Your task to perform on an android device: toggle show notifications on the lock screen Image 0: 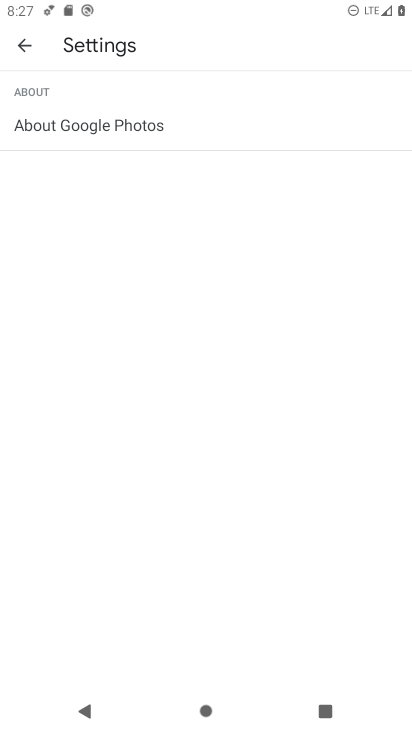
Step 0: drag from (207, 644) to (194, 204)
Your task to perform on an android device: toggle show notifications on the lock screen Image 1: 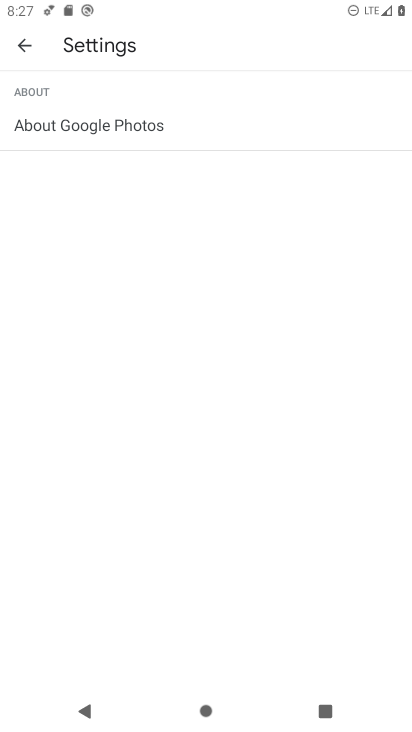
Step 1: press home button
Your task to perform on an android device: toggle show notifications on the lock screen Image 2: 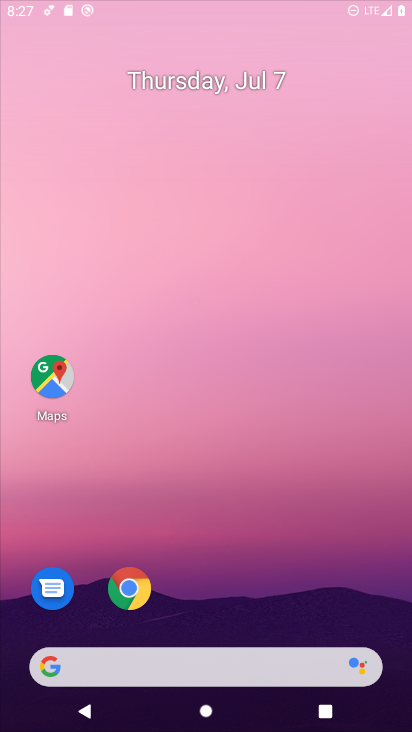
Step 2: drag from (240, 640) to (238, 137)
Your task to perform on an android device: toggle show notifications on the lock screen Image 3: 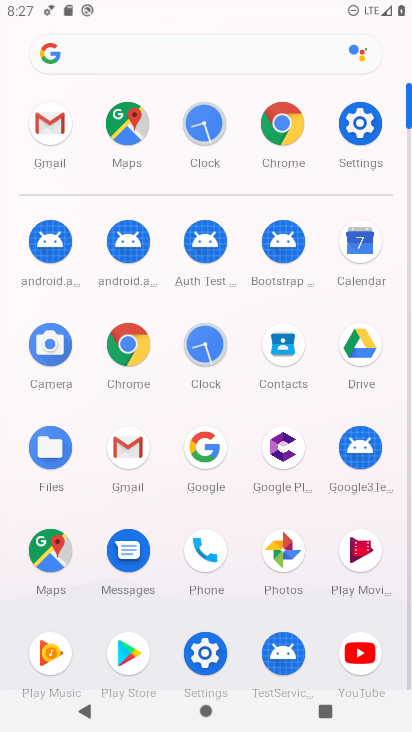
Step 3: click (361, 102)
Your task to perform on an android device: toggle show notifications on the lock screen Image 4: 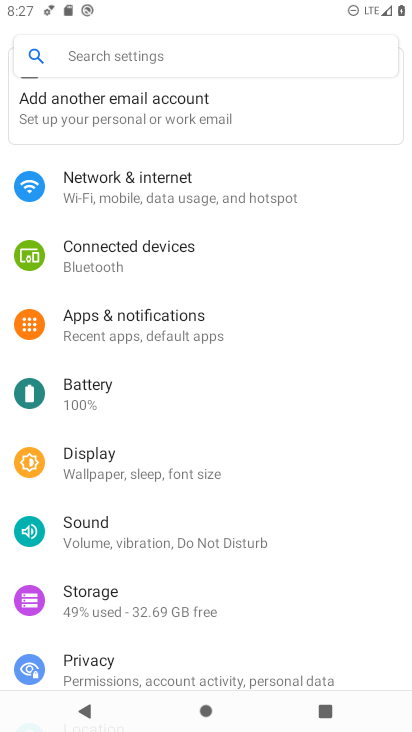
Step 4: click (155, 311)
Your task to perform on an android device: toggle show notifications on the lock screen Image 5: 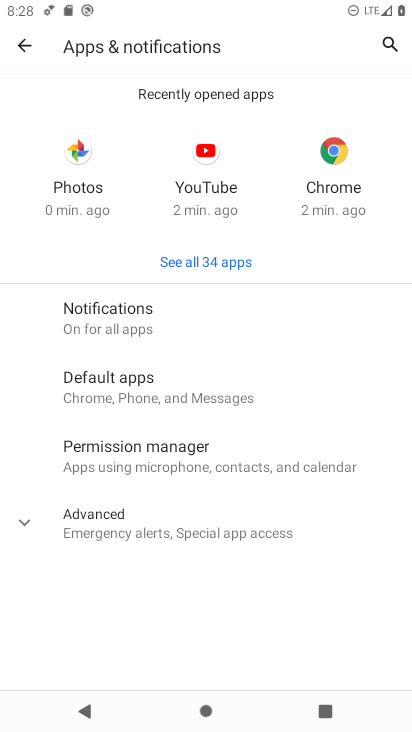
Step 5: click (163, 316)
Your task to perform on an android device: toggle show notifications on the lock screen Image 6: 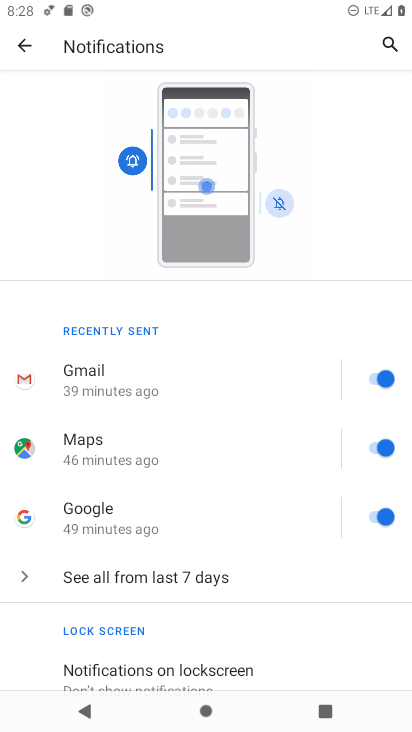
Step 6: drag from (138, 638) to (138, 405)
Your task to perform on an android device: toggle show notifications on the lock screen Image 7: 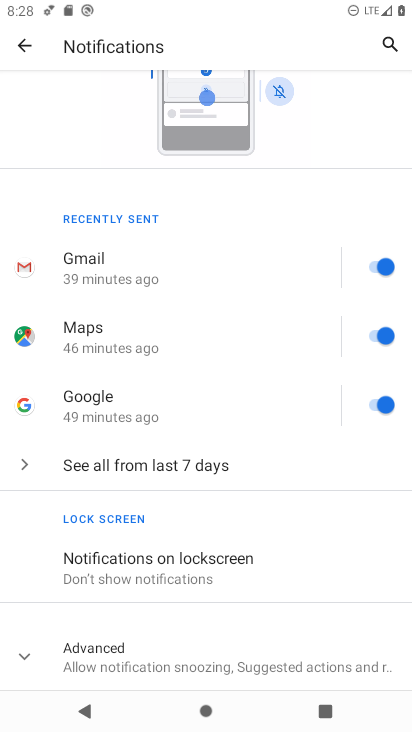
Step 7: click (156, 556)
Your task to perform on an android device: toggle show notifications on the lock screen Image 8: 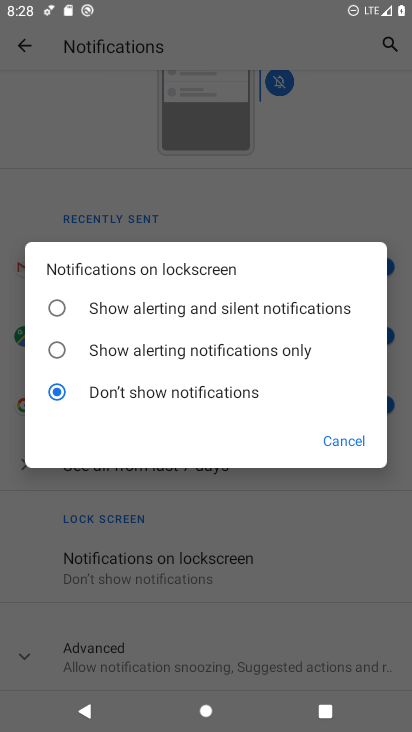
Step 8: click (167, 309)
Your task to perform on an android device: toggle show notifications on the lock screen Image 9: 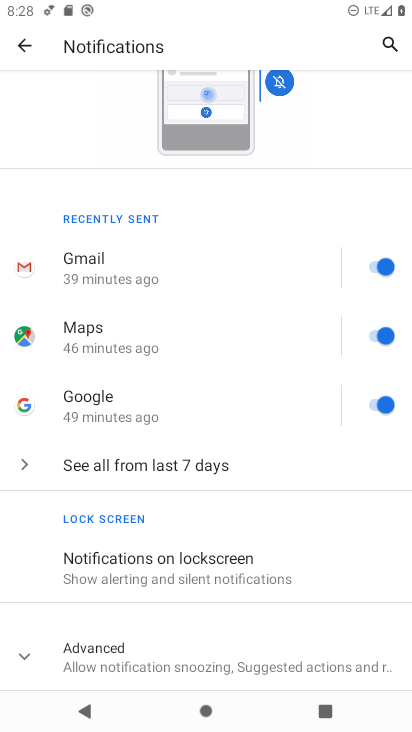
Step 9: task complete